Your task to perform on an android device: Open location settings Image 0: 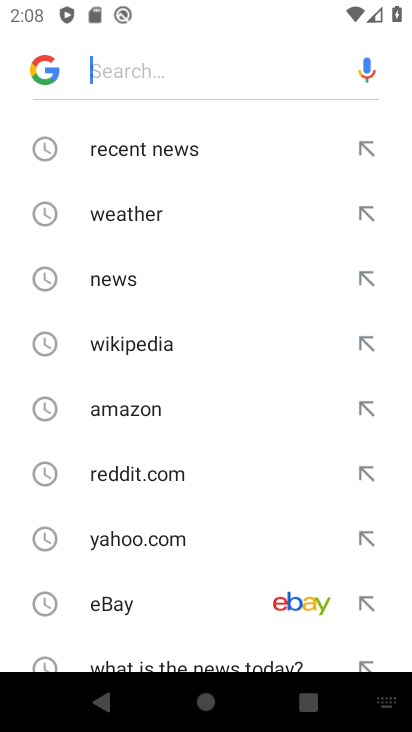
Step 0: press home button
Your task to perform on an android device: Open location settings Image 1: 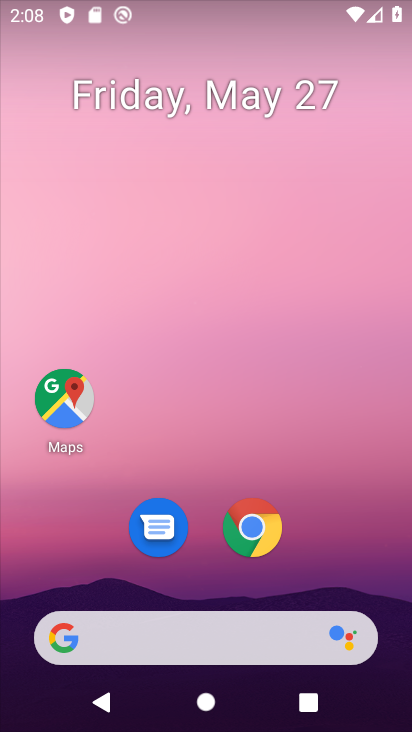
Step 1: drag from (188, 619) to (265, 145)
Your task to perform on an android device: Open location settings Image 2: 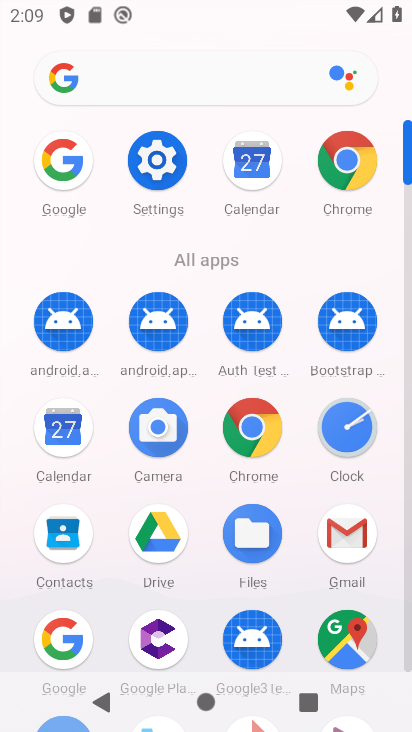
Step 2: click (160, 158)
Your task to perform on an android device: Open location settings Image 3: 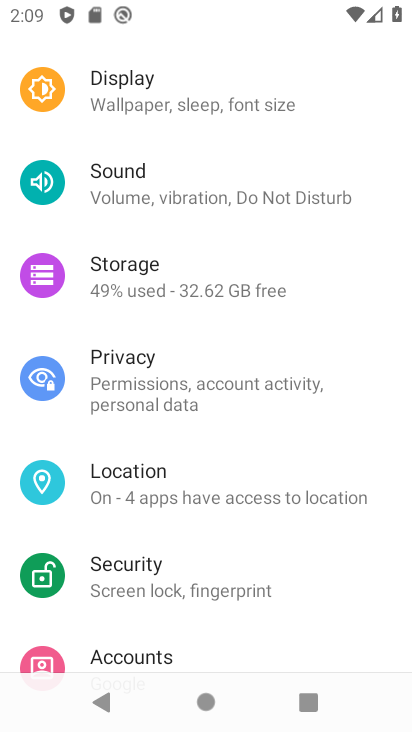
Step 3: click (137, 476)
Your task to perform on an android device: Open location settings Image 4: 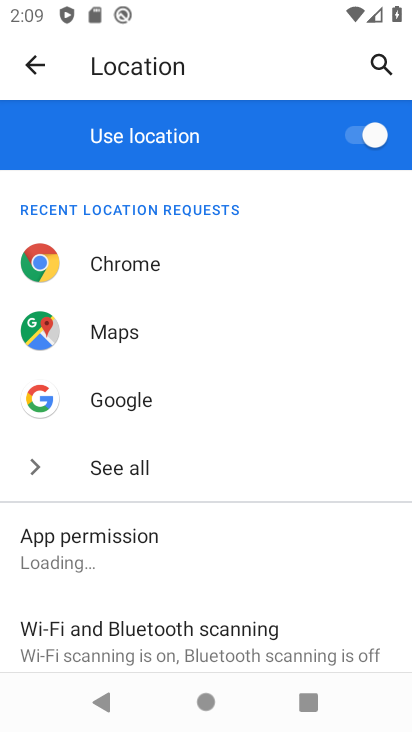
Step 4: drag from (167, 649) to (177, 297)
Your task to perform on an android device: Open location settings Image 5: 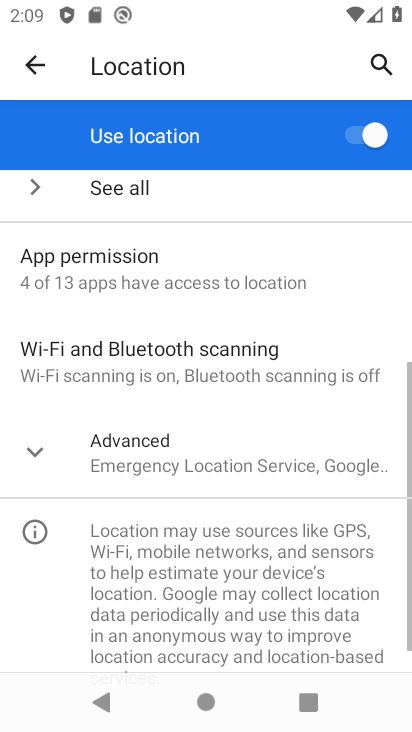
Step 5: click (181, 441)
Your task to perform on an android device: Open location settings Image 6: 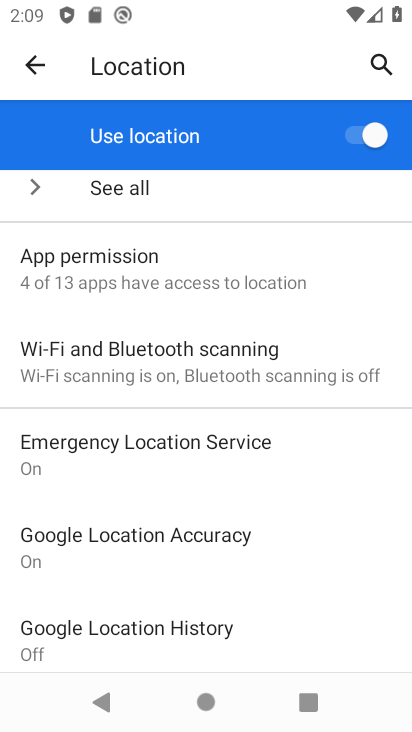
Step 6: task complete